Your task to perform on an android device: change notifications settings Image 0: 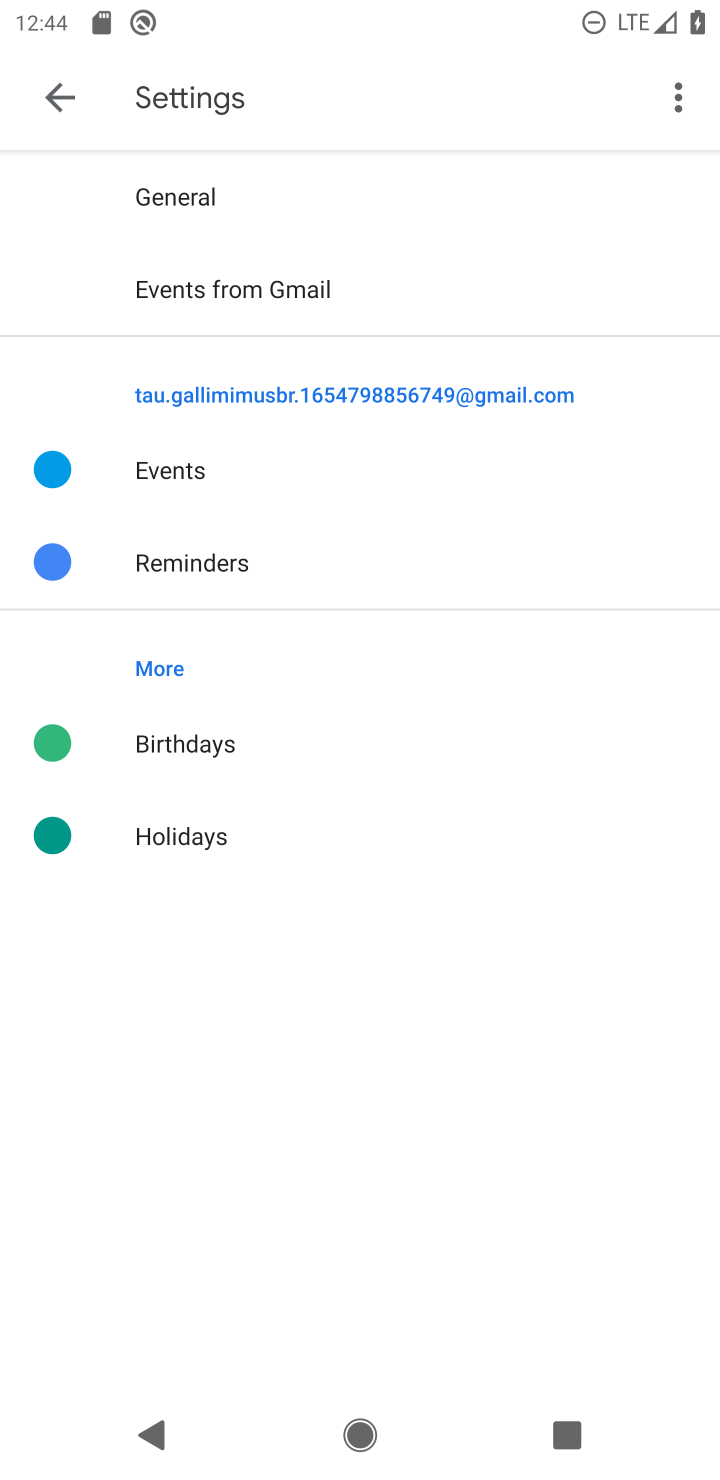
Step 0: press home button
Your task to perform on an android device: change notifications settings Image 1: 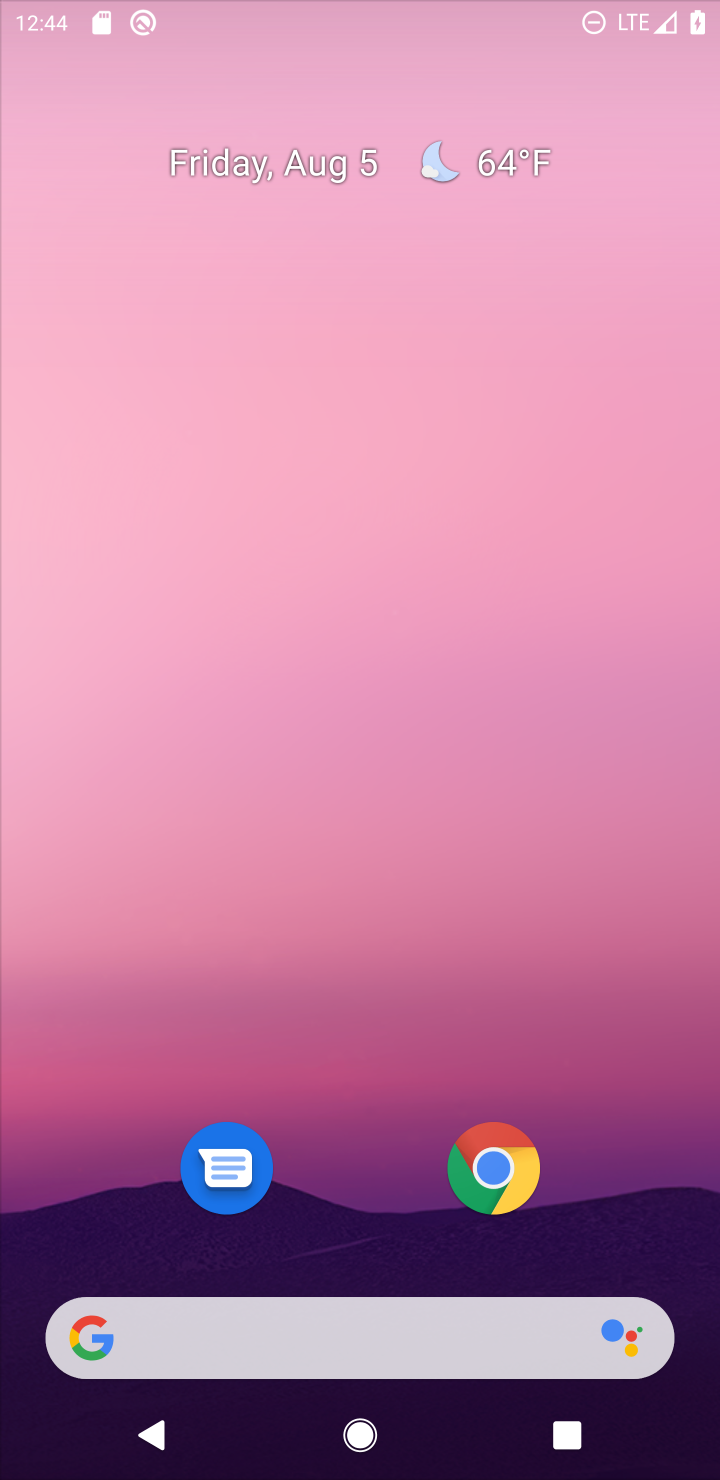
Step 1: drag from (647, 1252) to (383, 39)
Your task to perform on an android device: change notifications settings Image 2: 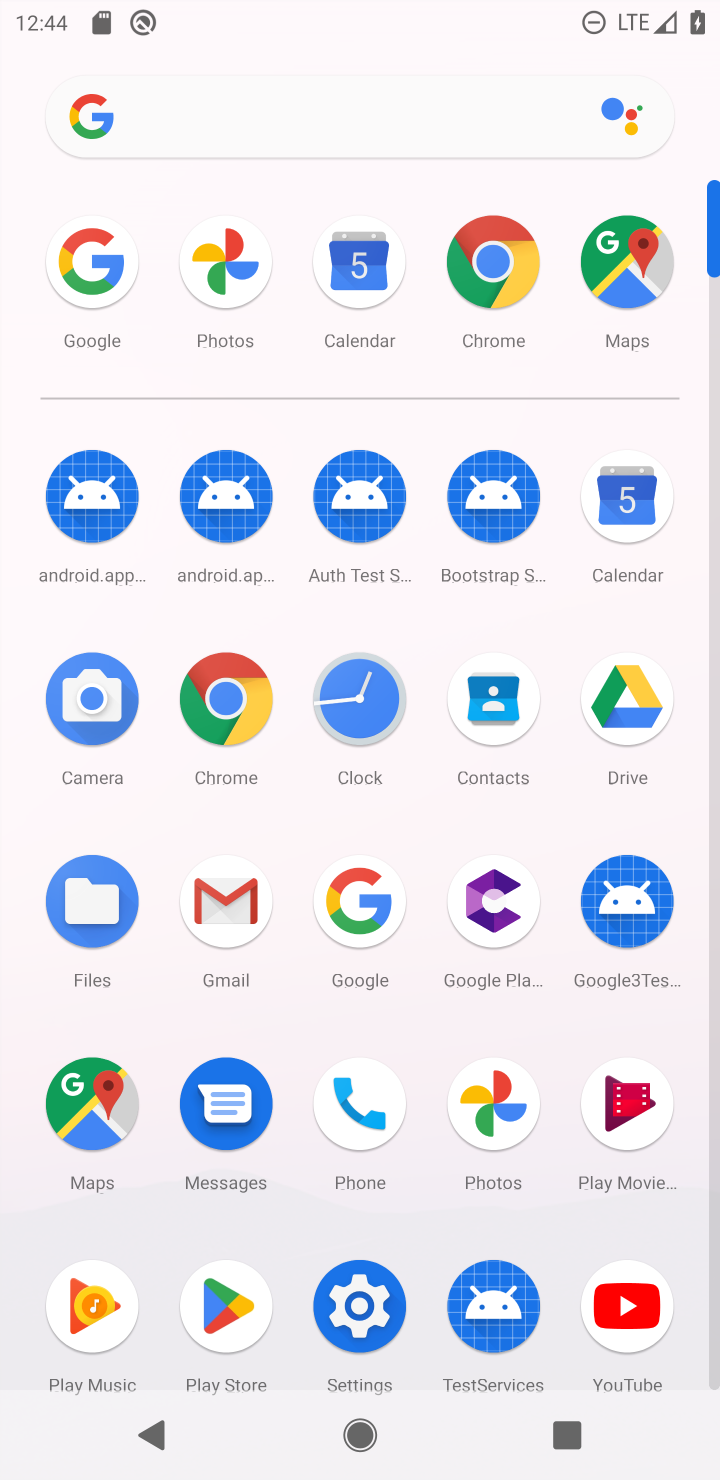
Step 2: click (380, 1268)
Your task to perform on an android device: change notifications settings Image 3: 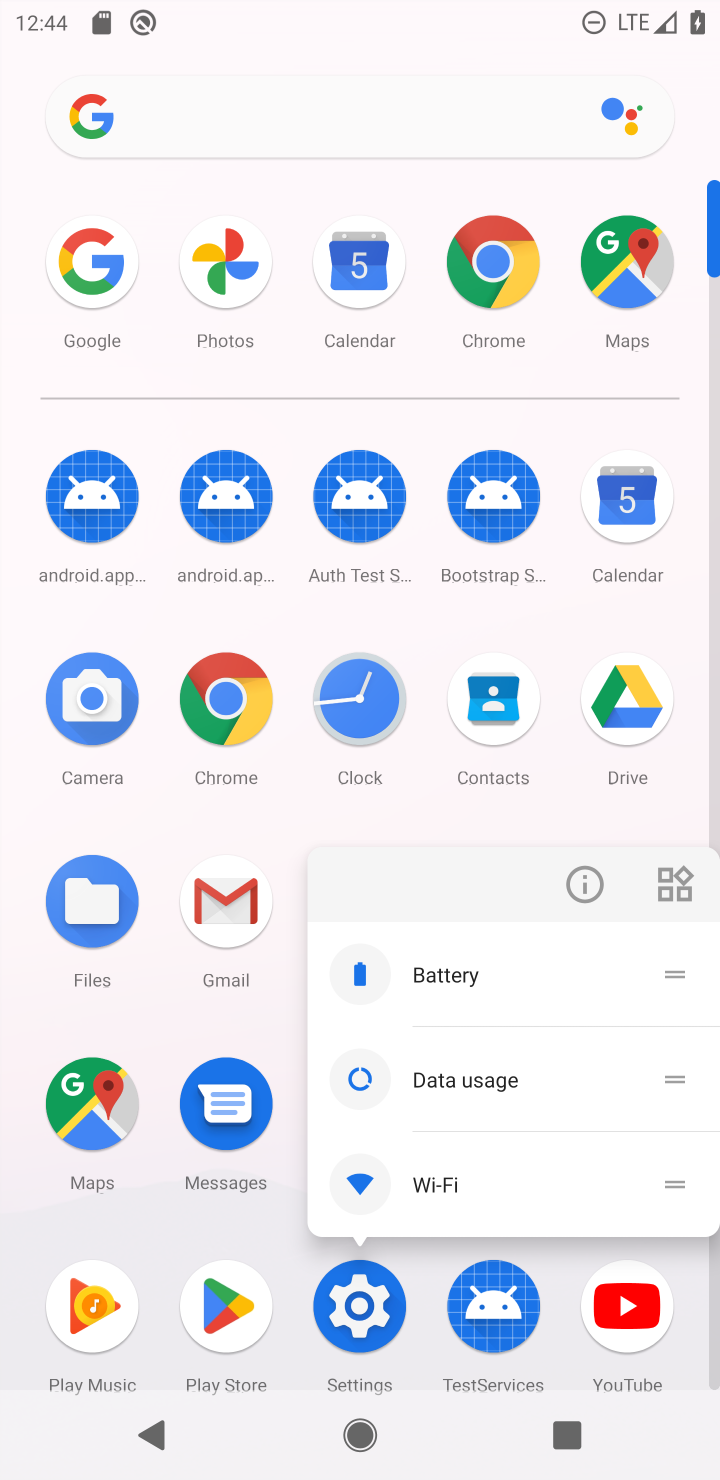
Step 3: click (323, 1354)
Your task to perform on an android device: change notifications settings Image 4: 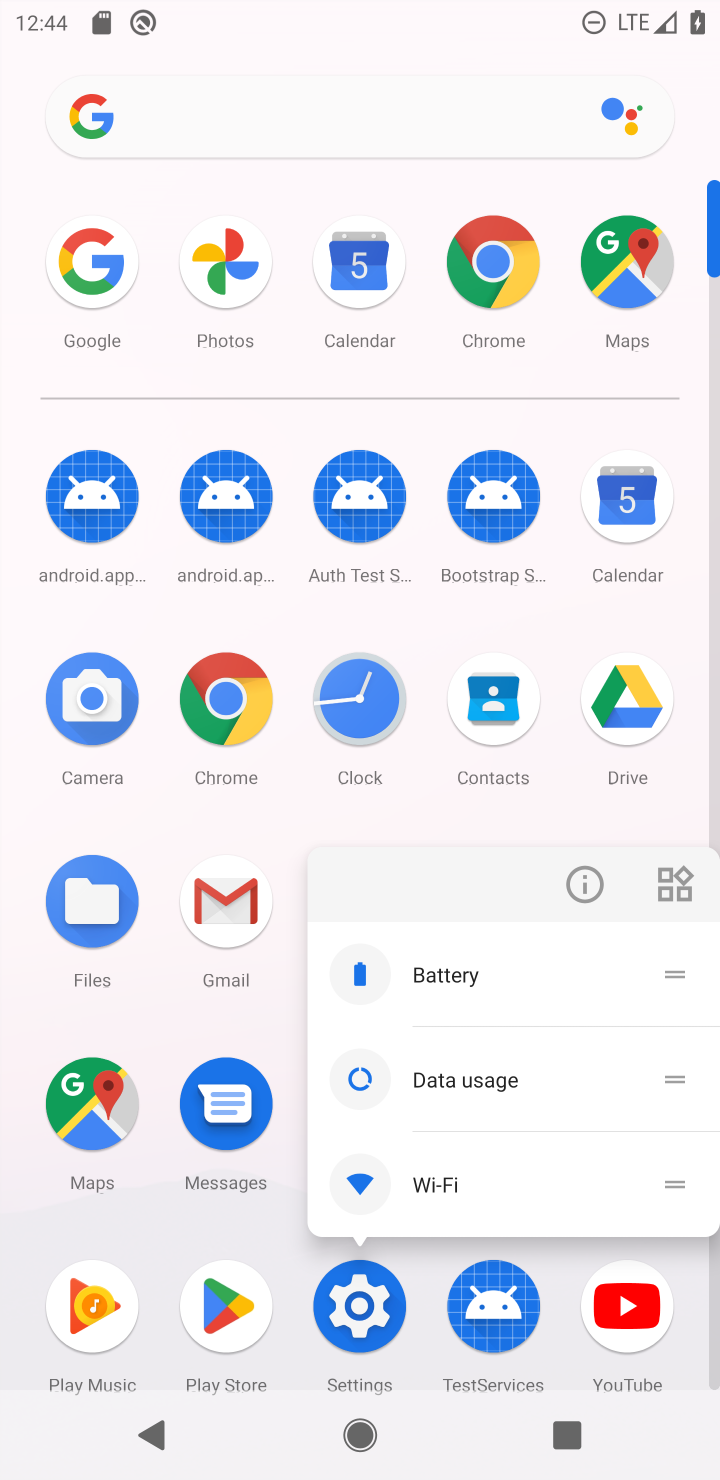
Step 4: click (331, 1330)
Your task to perform on an android device: change notifications settings Image 5: 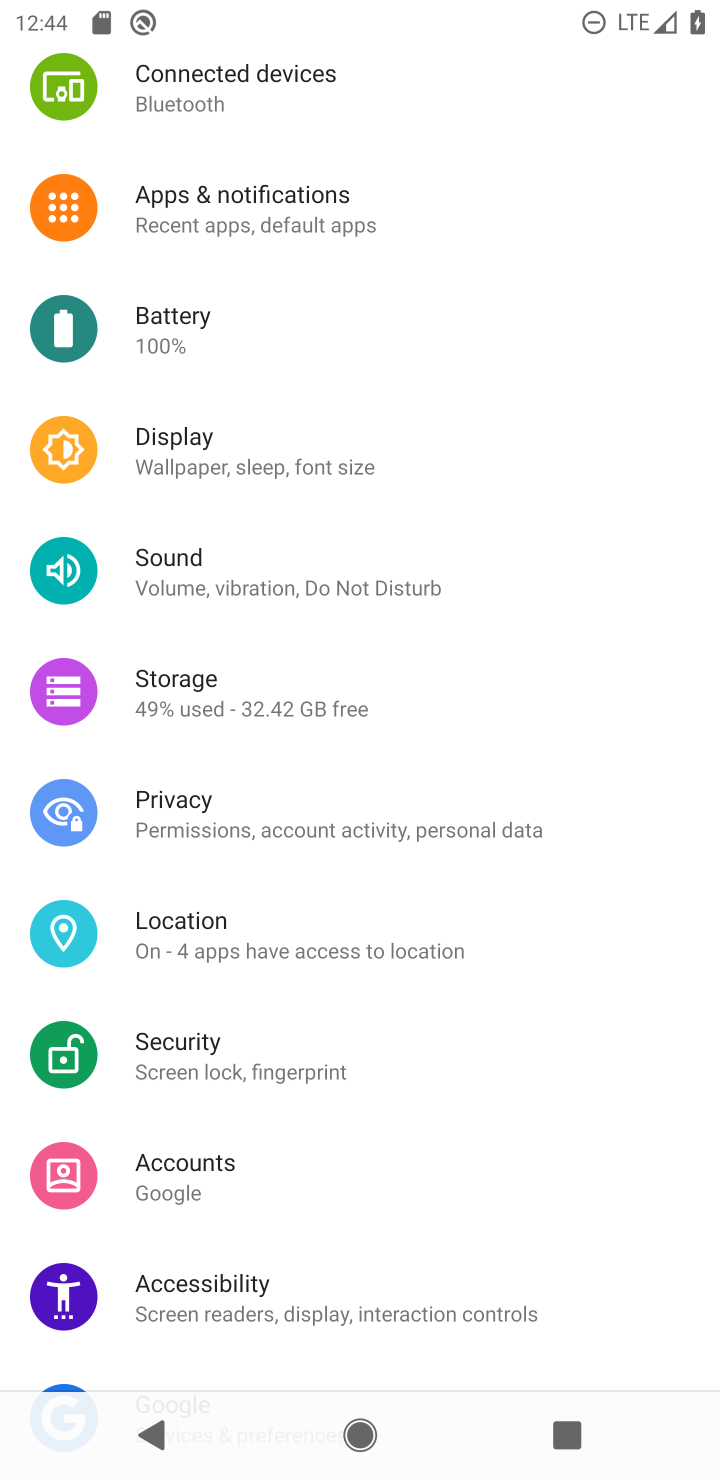
Step 5: click (355, 196)
Your task to perform on an android device: change notifications settings Image 6: 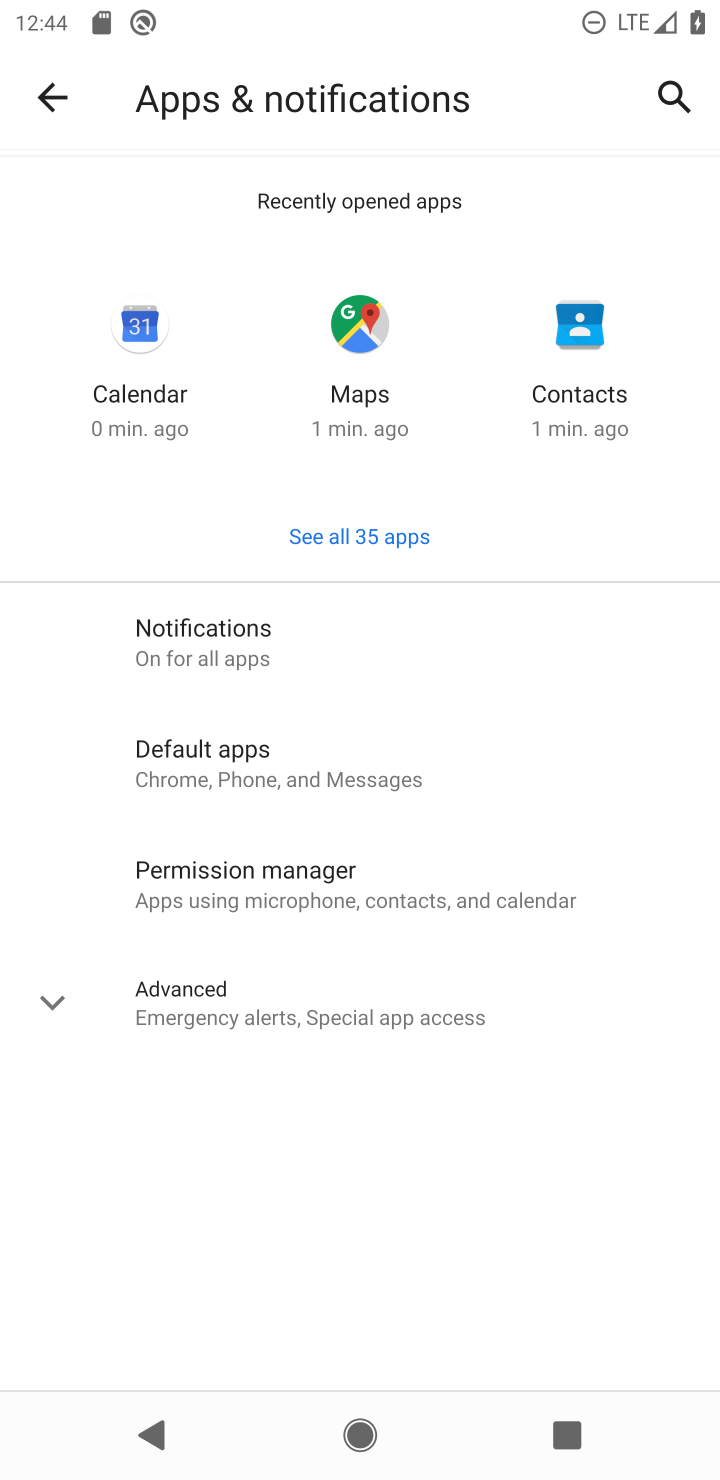
Step 6: task complete